Your task to perform on an android device: Open battery settings Image 0: 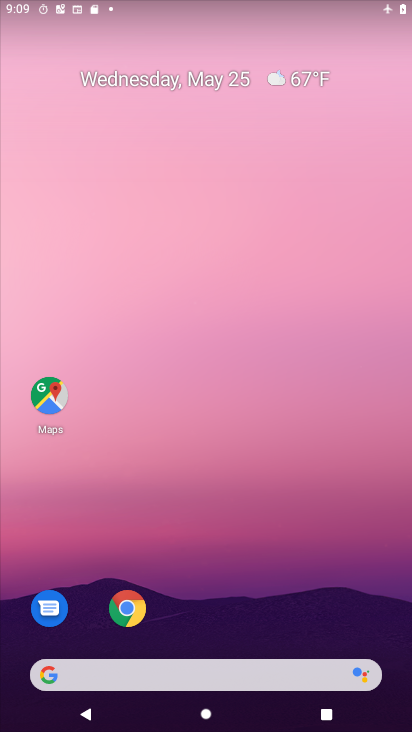
Step 0: drag from (257, 726) to (238, 276)
Your task to perform on an android device: Open battery settings Image 1: 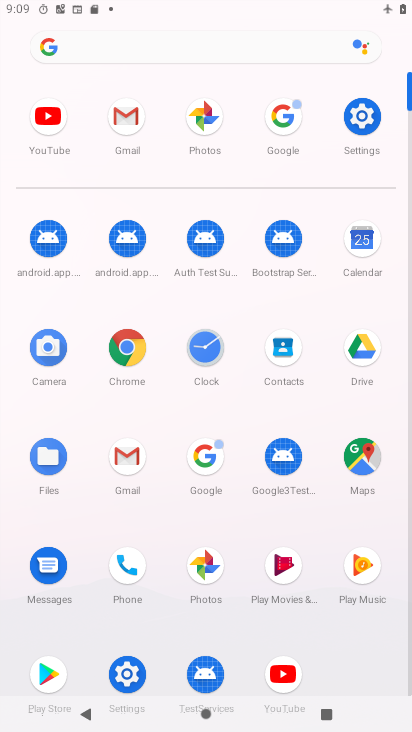
Step 1: click (358, 119)
Your task to perform on an android device: Open battery settings Image 2: 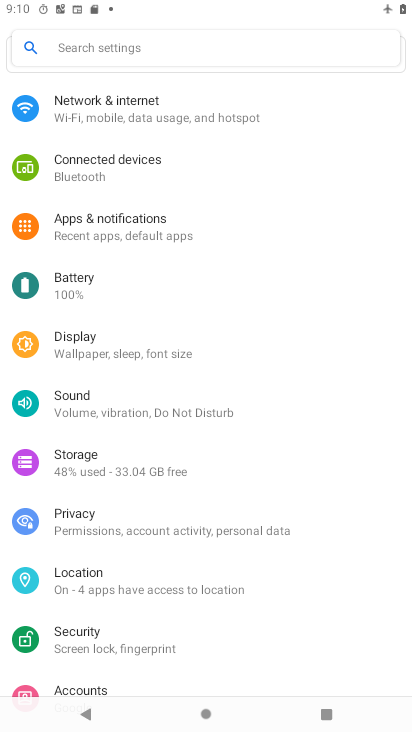
Step 2: click (71, 280)
Your task to perform on an android device: Open battery settings Image 3: 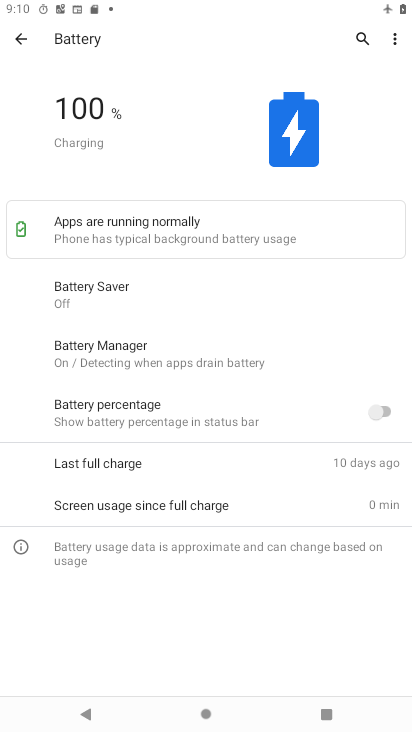
Step 3: task complete